Your task to perform on an android device: uninstall "Upside-Cash back on gas & food" Image 0: 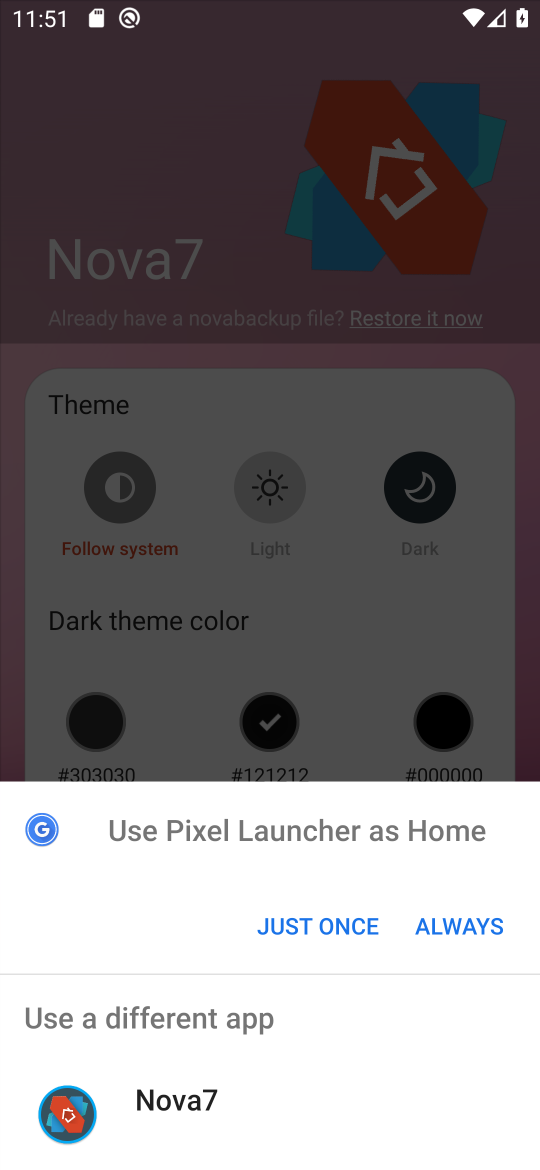
Step 0: press home button
Your task to perform on an android device: uninstall "Upside-Cash back on gas & food" Image 1: 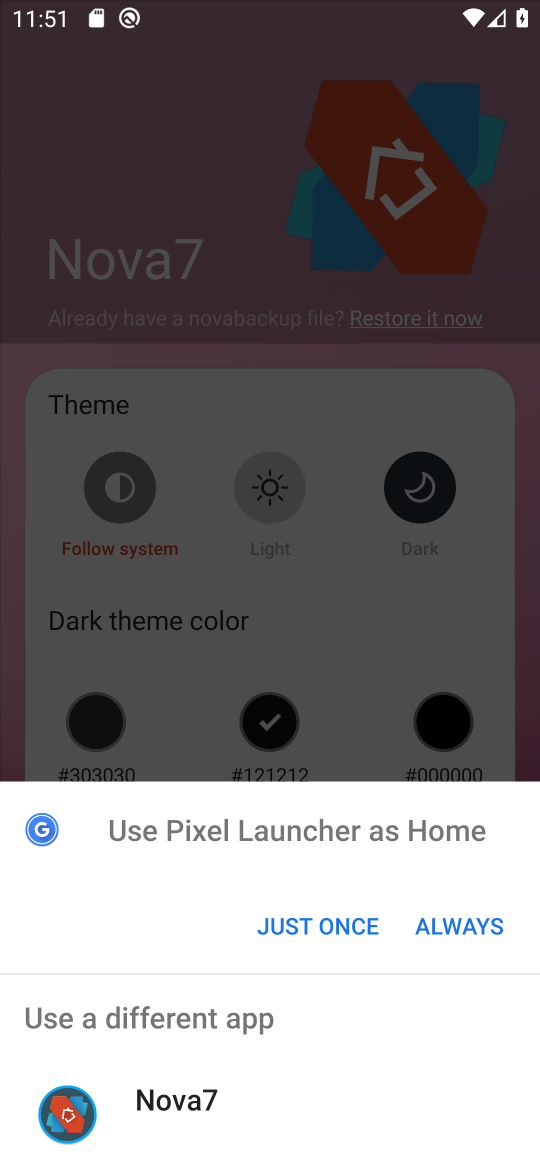
Step 1: press home button
Your task to perform on an android device: uninstall "Upside-Cash back on gas & food" Image 2: 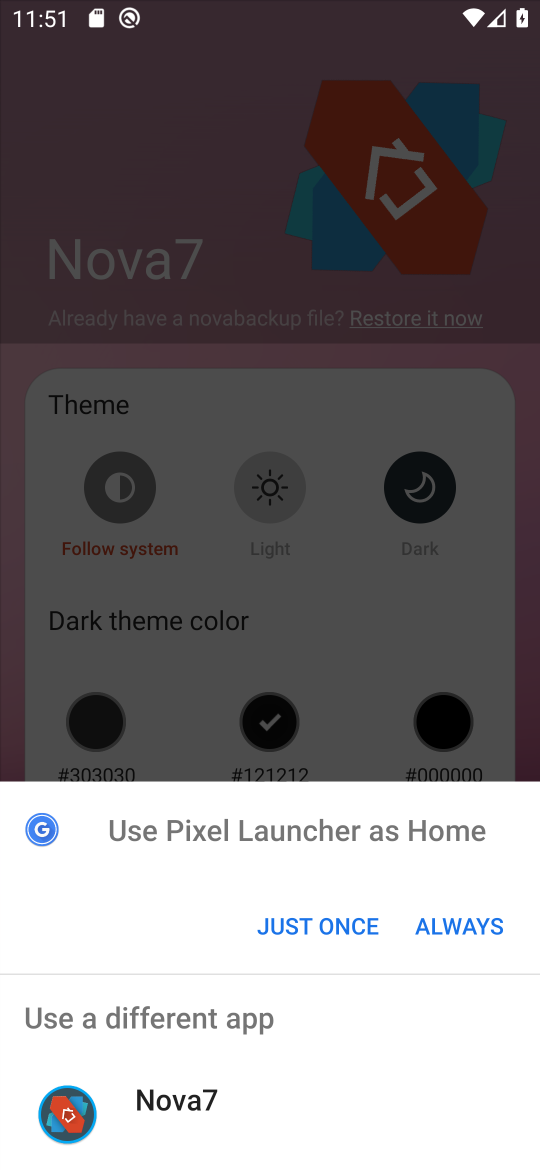
Step 2: click (297, 218)
Your task to perform on an android device: uninstall "Upside-Cash back on gas & food" Image 3: 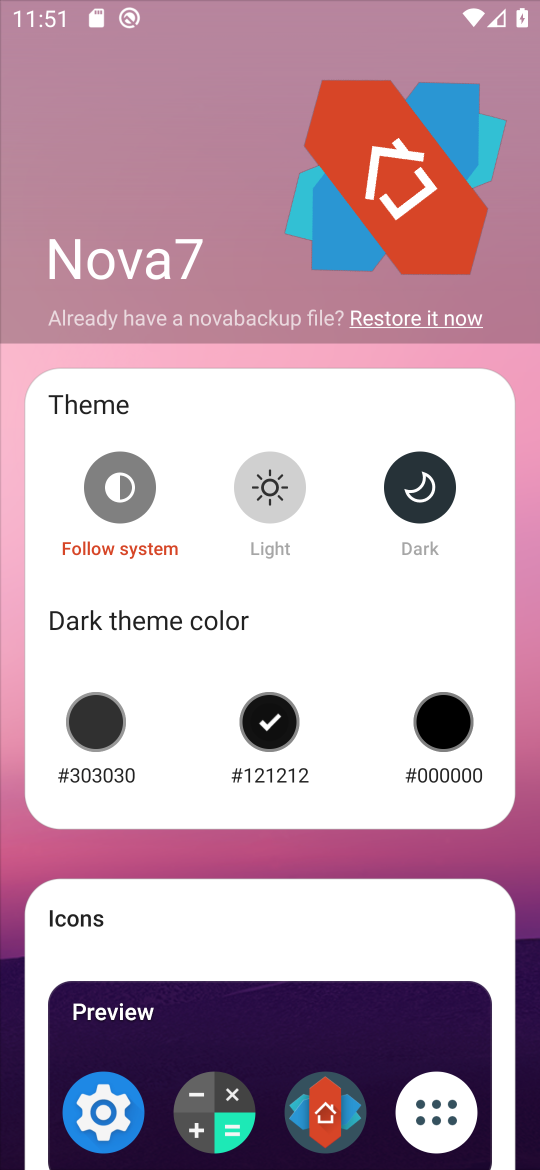
Step 3: drag from (359, 1089) to (313, 72)
Your task to perform on an android device: uninstall "Upside-Cash back on gas & food" Image 4: 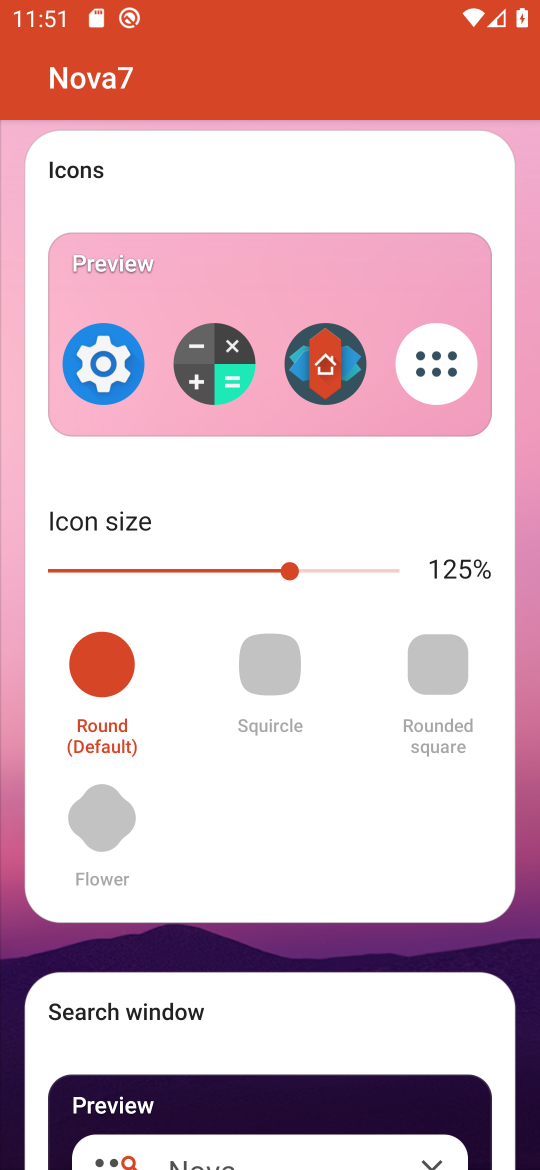
Step 4: drag from (327, 248) to (505, 1158)
Your task to perform on an android device: uninstall "Upside-Cash back on gas & food" Image 5: 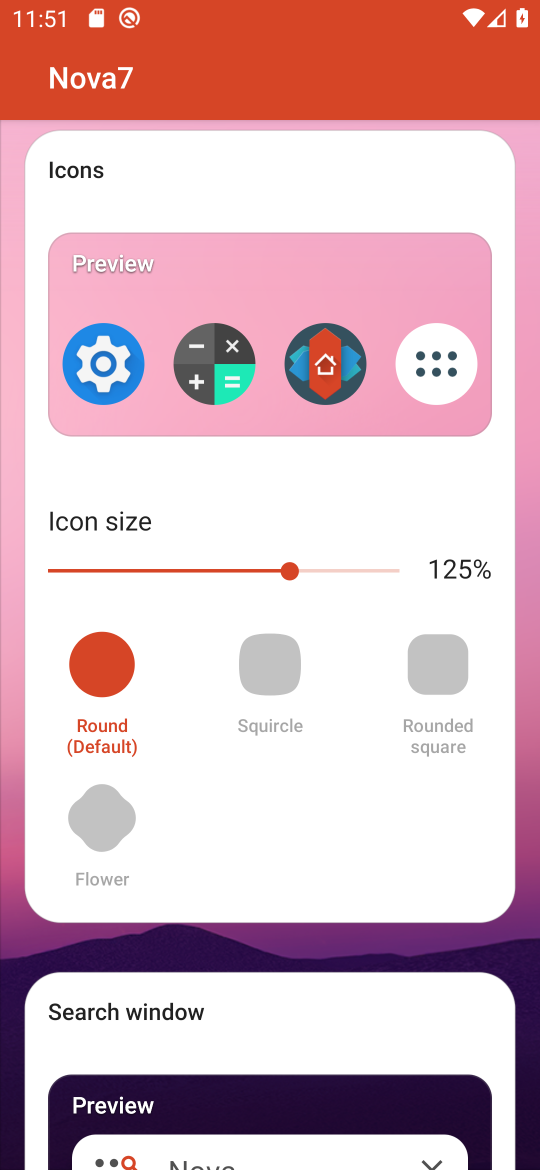
Step 5: press back button
Your task to perform on an android device: uninstall "Upside-Cash back on gas & food" Image 6: 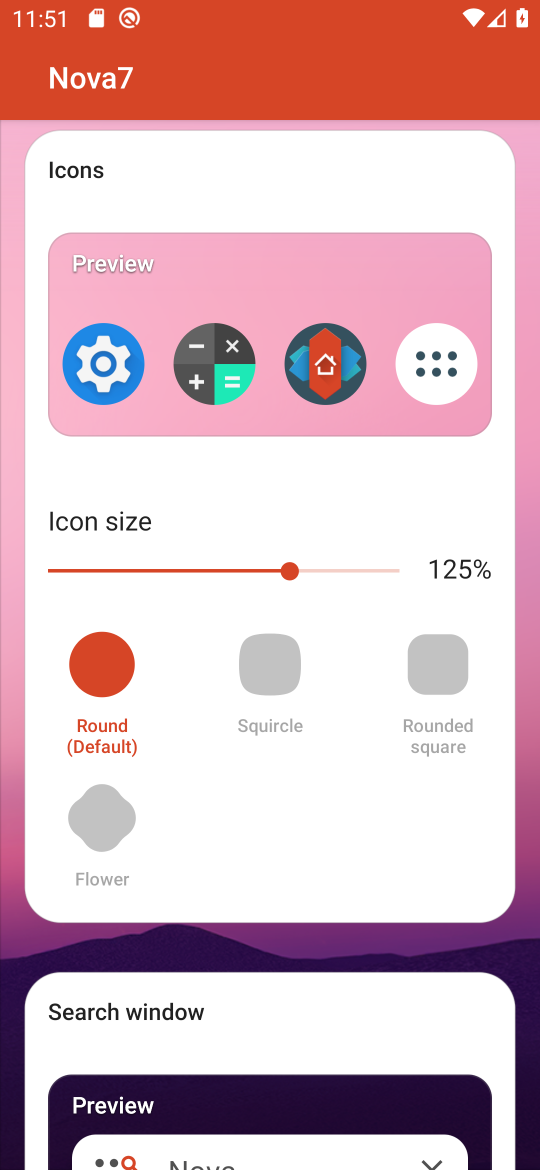
Step 6: press back button
Your task to perform on an android device: uninstall "Upside-Cash back on gas & food" Image 7: 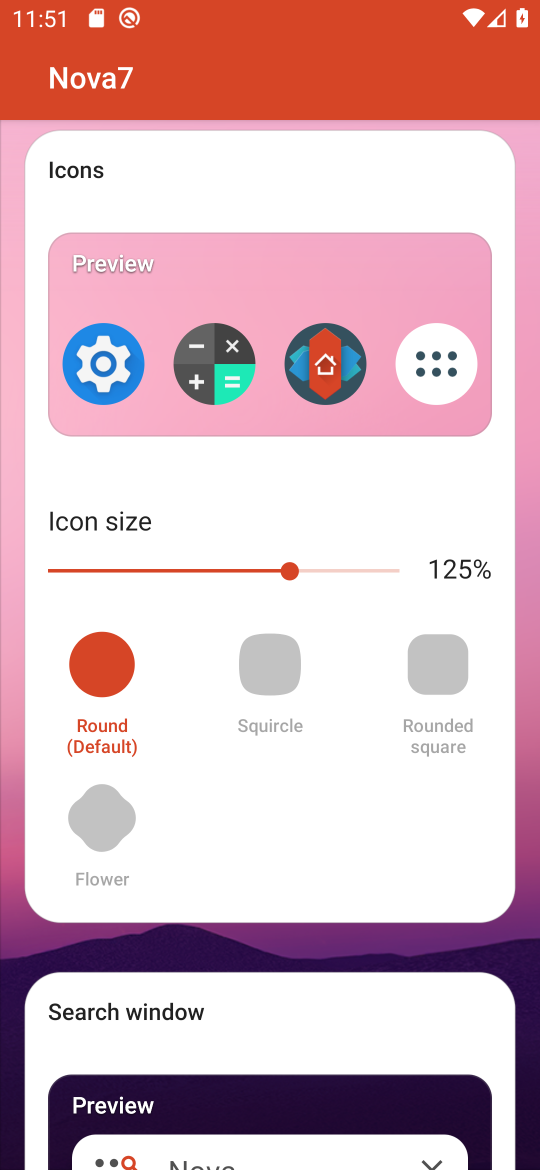
Step 7: press back button
Your task to perform on an android device: uninstall "Upside-Cash back on gas & food" Image 8: 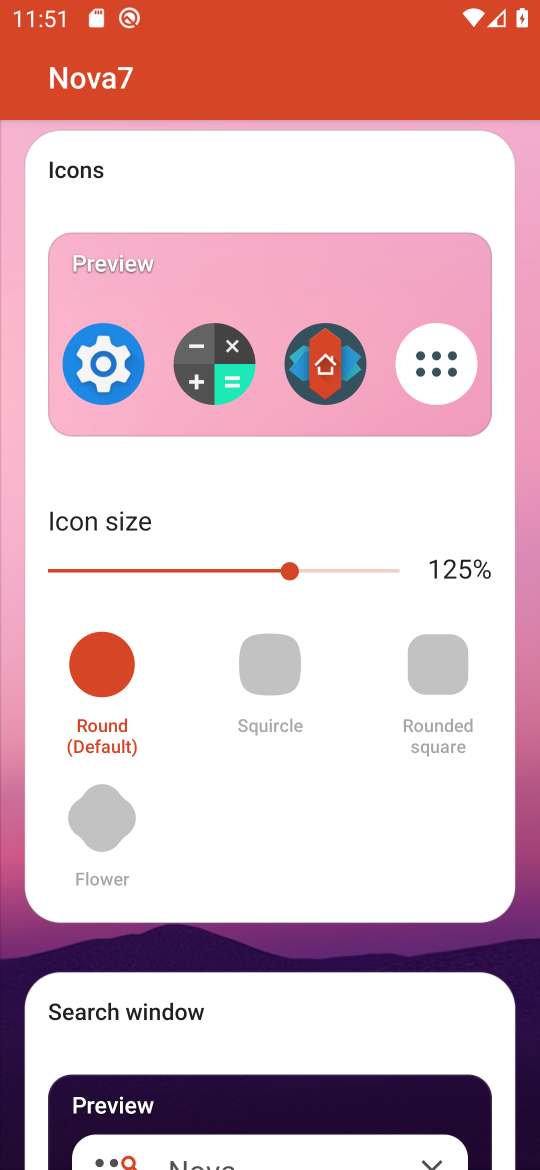
Step 8: press back button
Your task to perform on an android device: uninstall "Upside-Cash back on gas & food" Image 9: 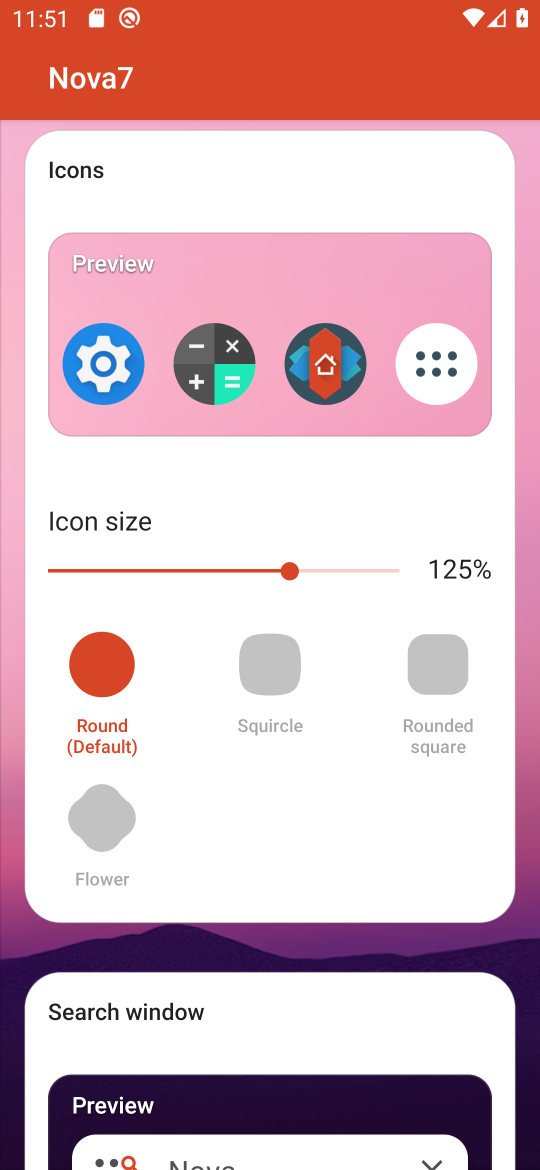
Step 9: drag from (244, 1000) to (376, 349)
Your task to perform on an android device: uninstall "Upside-Cash back on gas & food" Image 10: 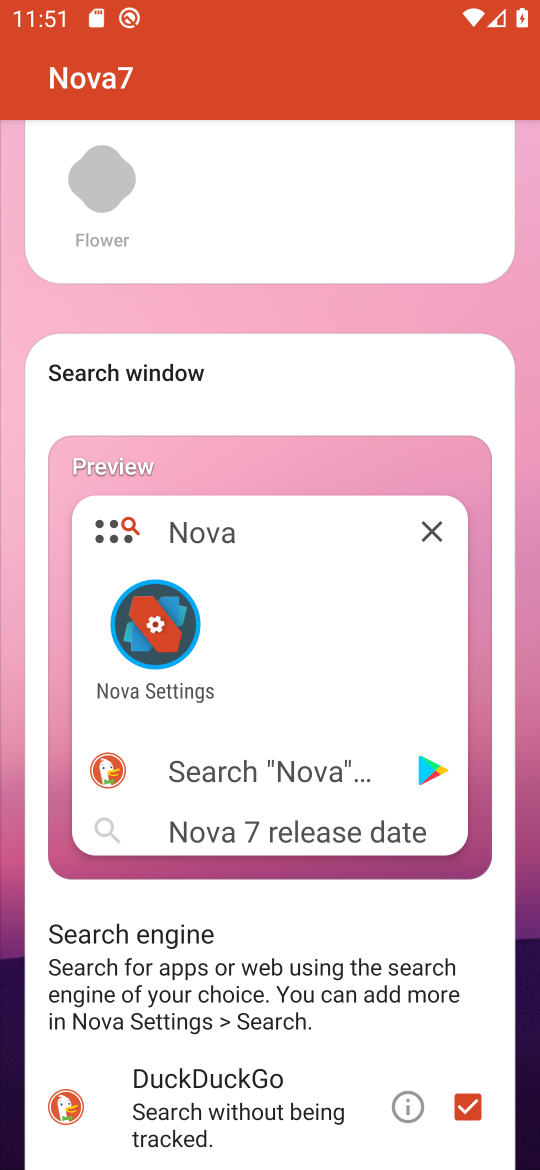
Step 10: click (439, 530)
Your task to perform on an android device: uninstall "Upside-Cash back on gas & food" Image 11: 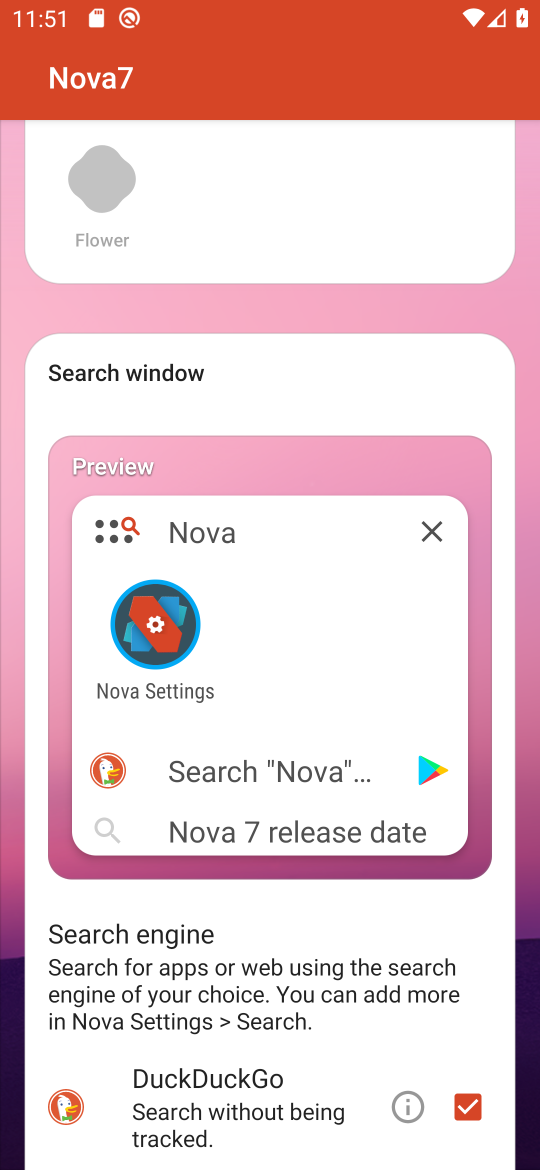
Step 11: click (420, 527)
Your task to perform on an android device: uninstall "Upside-Cash back on gas & food" Image 12: 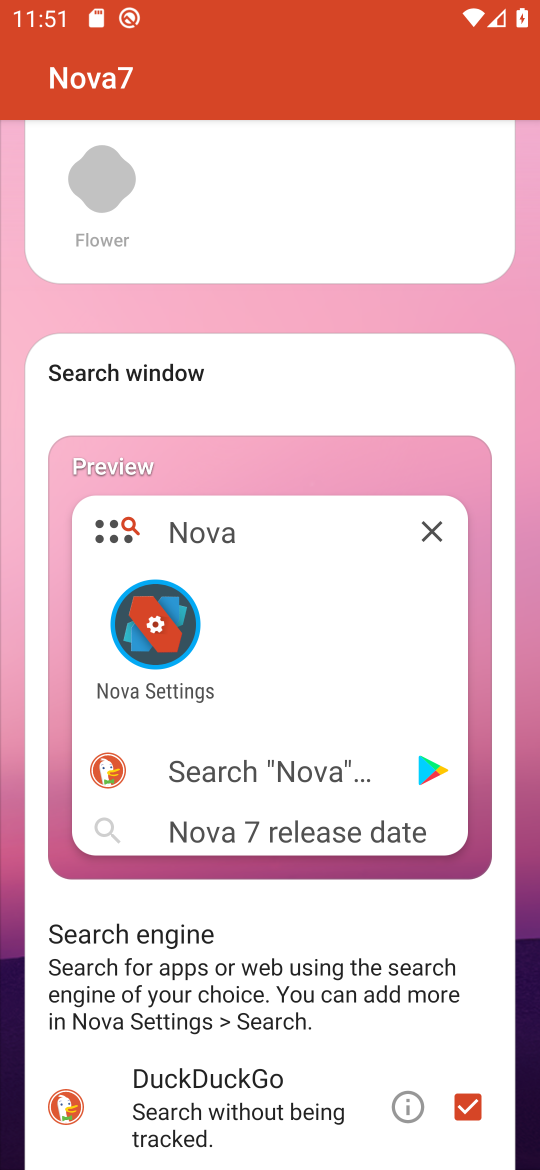
Step 12: click (428, 538)
Your task to perform on an android device: uninstall "Upside-Cash back on gas & food" Image 13: 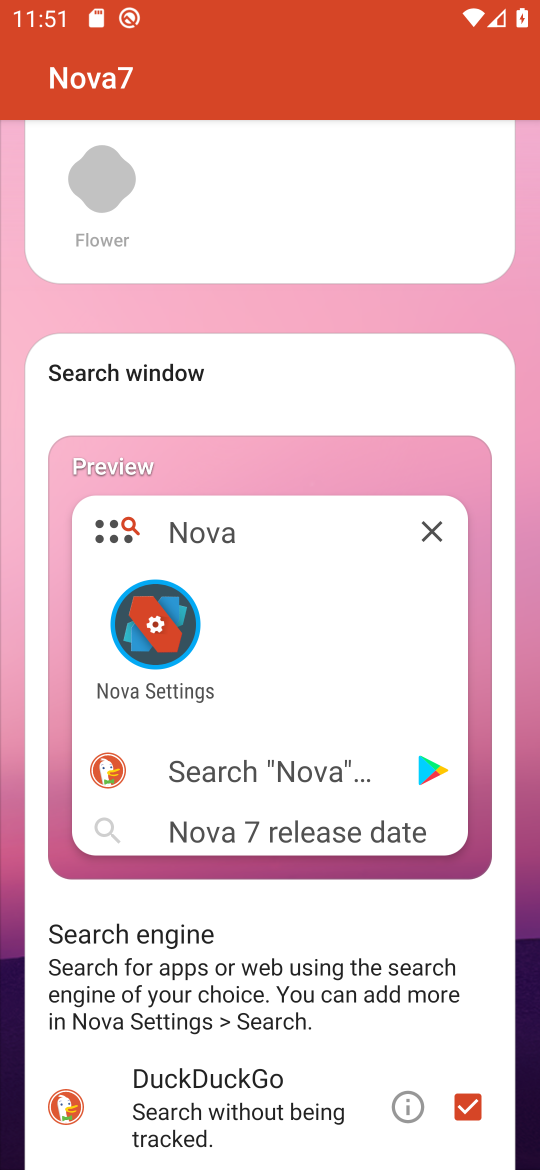
Step 13: click (432, 537)
Your task to perform on an android device: uninstall "Upside-Cash back on gas & food" Image 14: 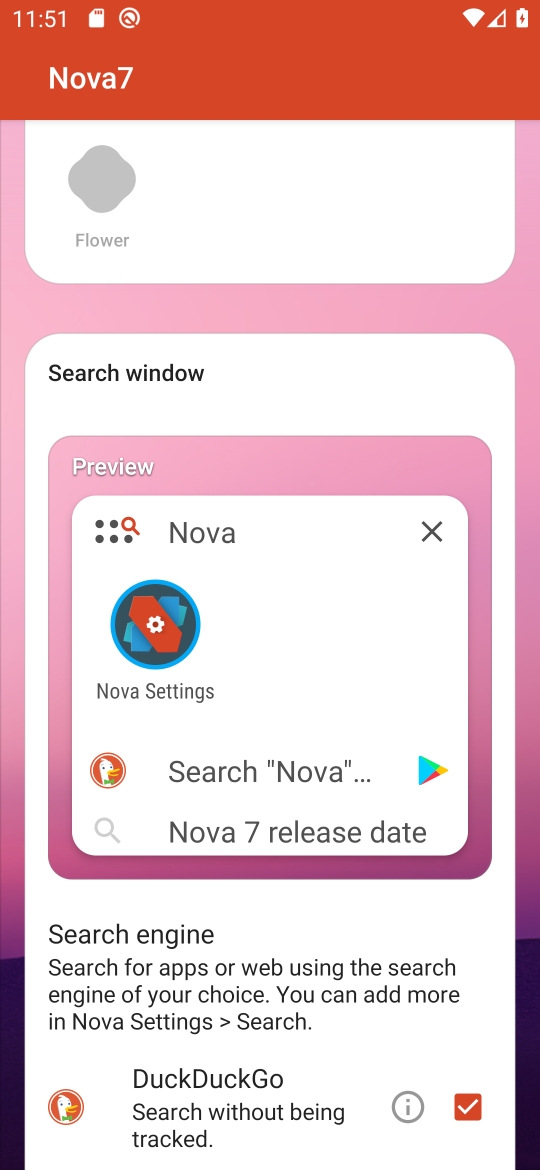
Step 14: drag from (287, 329) to (245, 2)
Your task to perform on an android device: uninstall "Upside-Cash back on gas & food" Image 15: 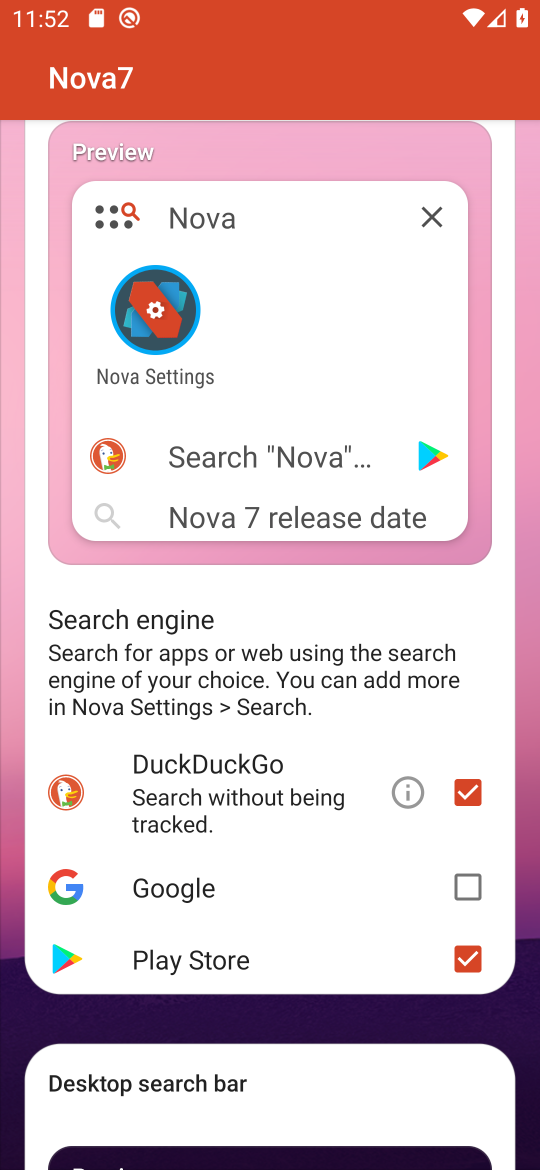
Step 15: click (421, 214)
Your task to perform on an android device: uninstall "Upside-Cash back on gas & food" Image 16: 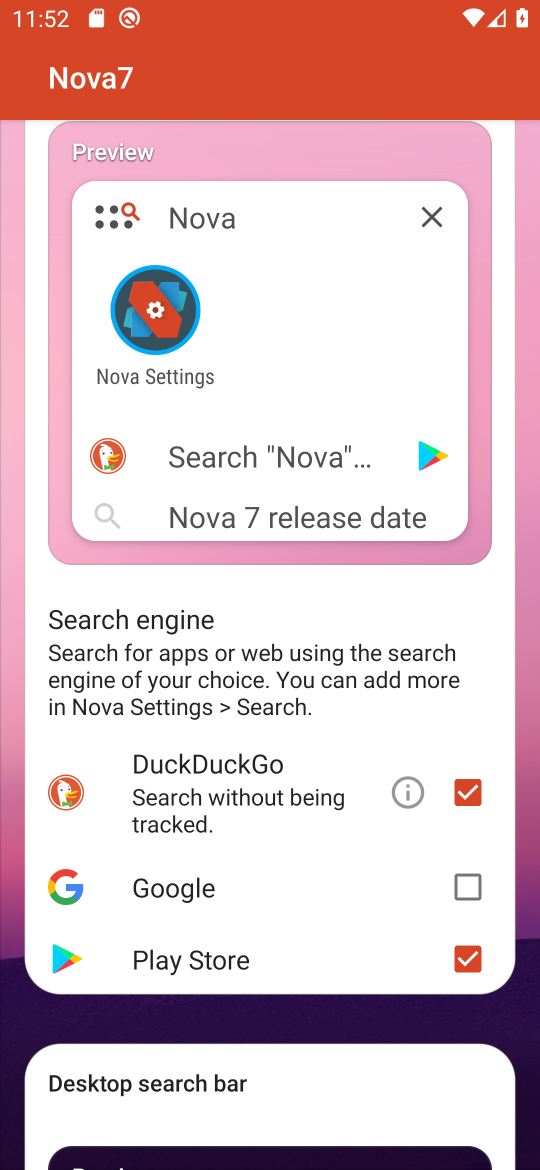
Step 16: click (431, 215)
Your task to perform on an android device: uninstall "Upside-Cash back on gas & food" Image 17: 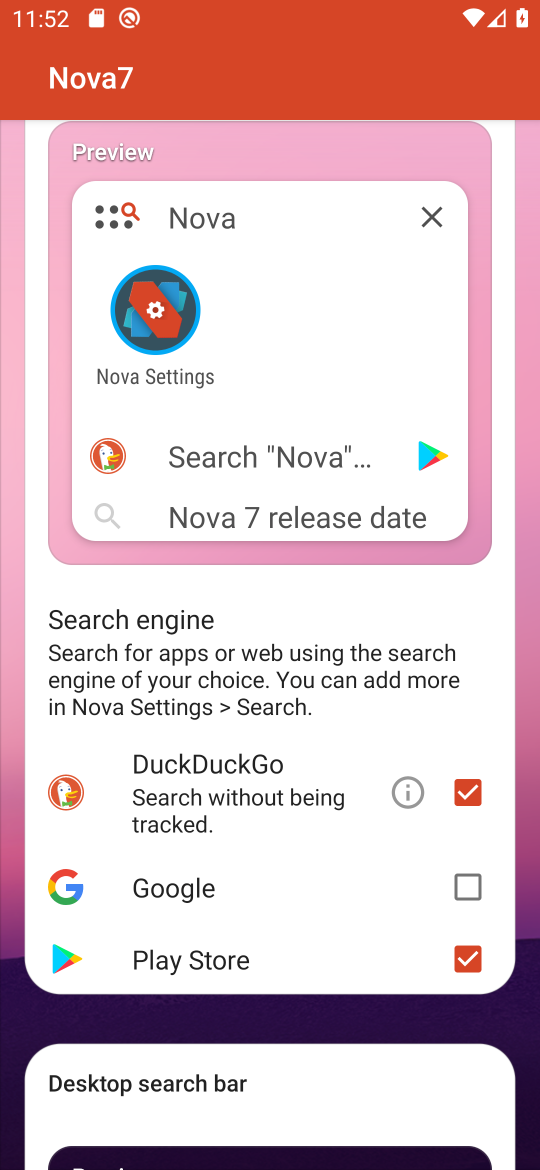
Step 17: click (431, 212)
Your task to perform on an android device: uninstall "Upside-Cash back on gas & food" Image 18: 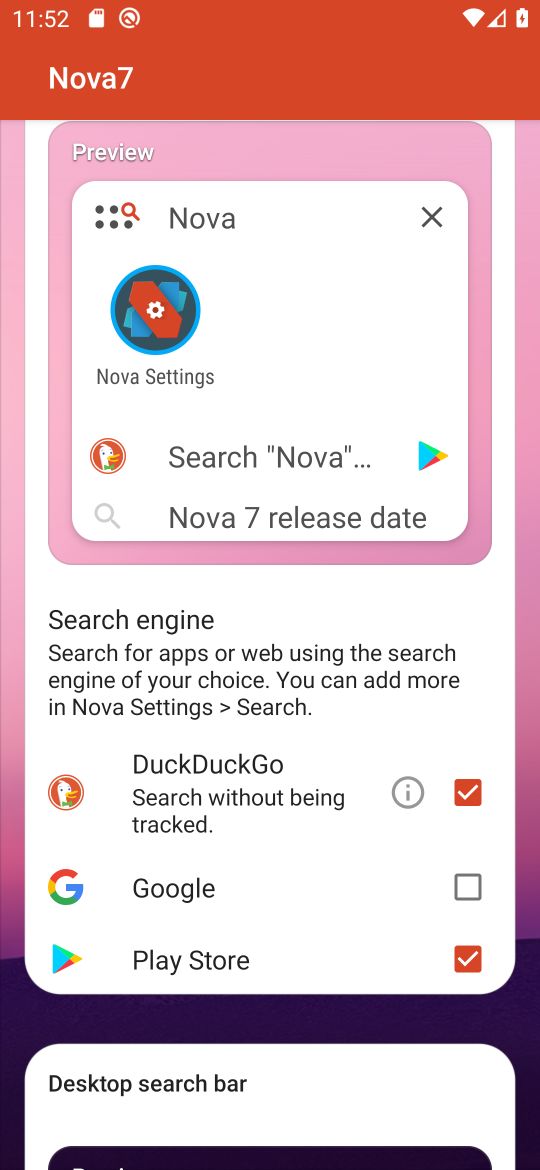
Step 18: drag from (167, 975) to (331, 364)
Your task to perform on an android device: uninstall "Upside-Cash back on gas & food" Image 19: 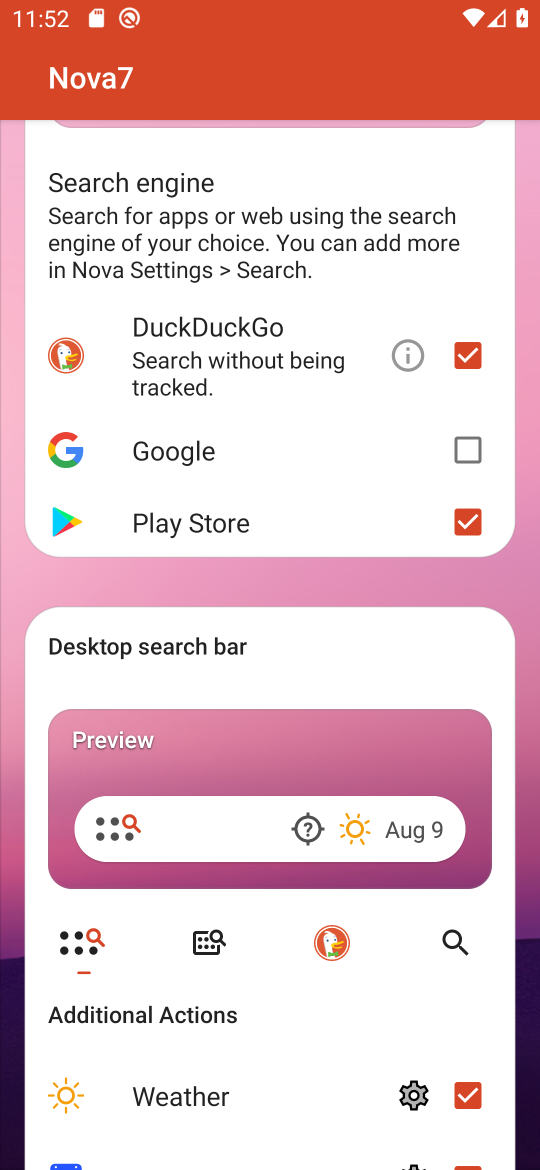
Step 19: drag from (316, 606) to (334, 187)
Your task to perform on an android device: uninstall "Upside-Cash back on gas & food" Image 20: 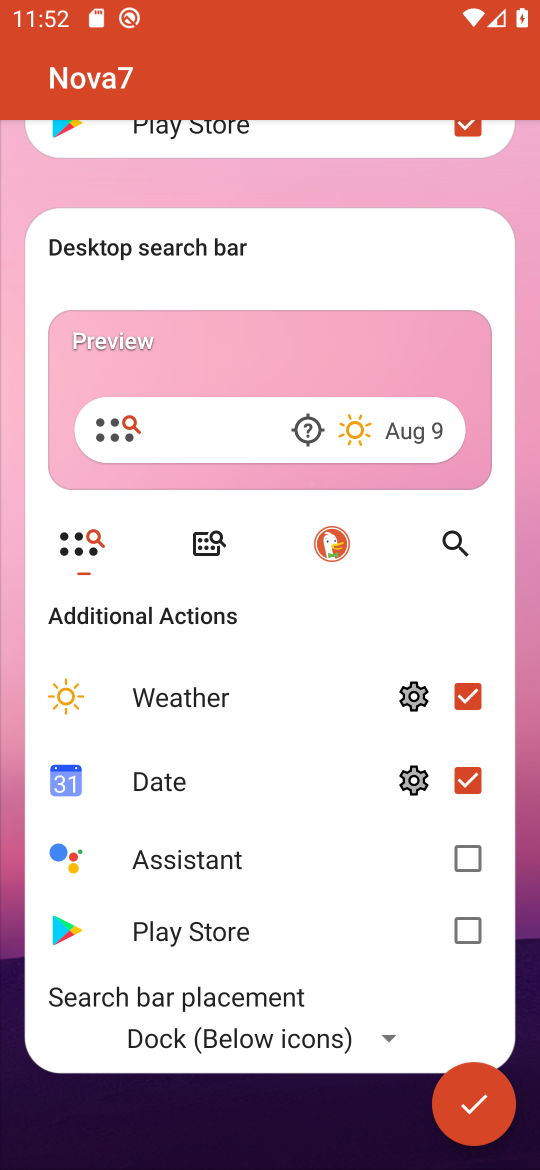
Step 20: press back button
Your task to perform on an android device: uninstall "Upside-Cash back on gas & food" Image 21: 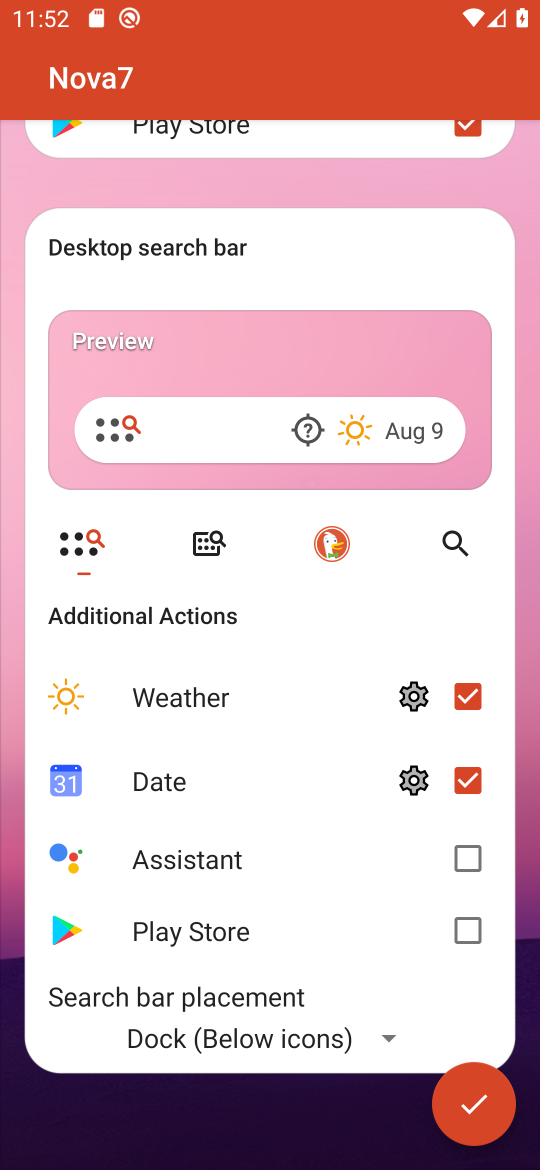
Step 21: press back button
Your task to perform on an android device: uninstall "Upside-Cash back on gas & food" Image 22: 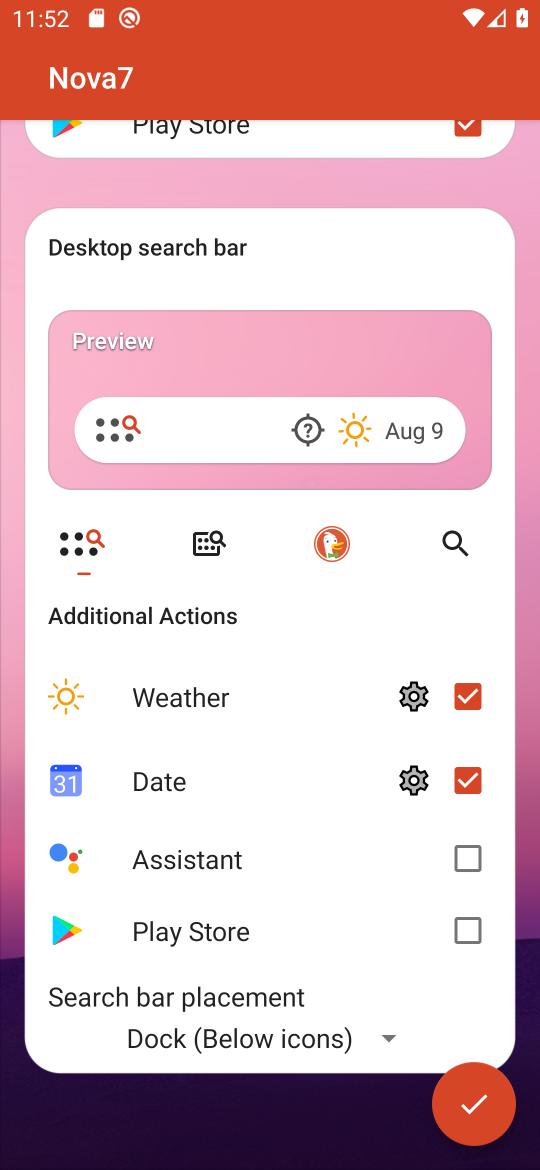
Step 22: press back button
Your task to perform on an android device: uninstall "Upside-Cash back on gas & food" Image 23: 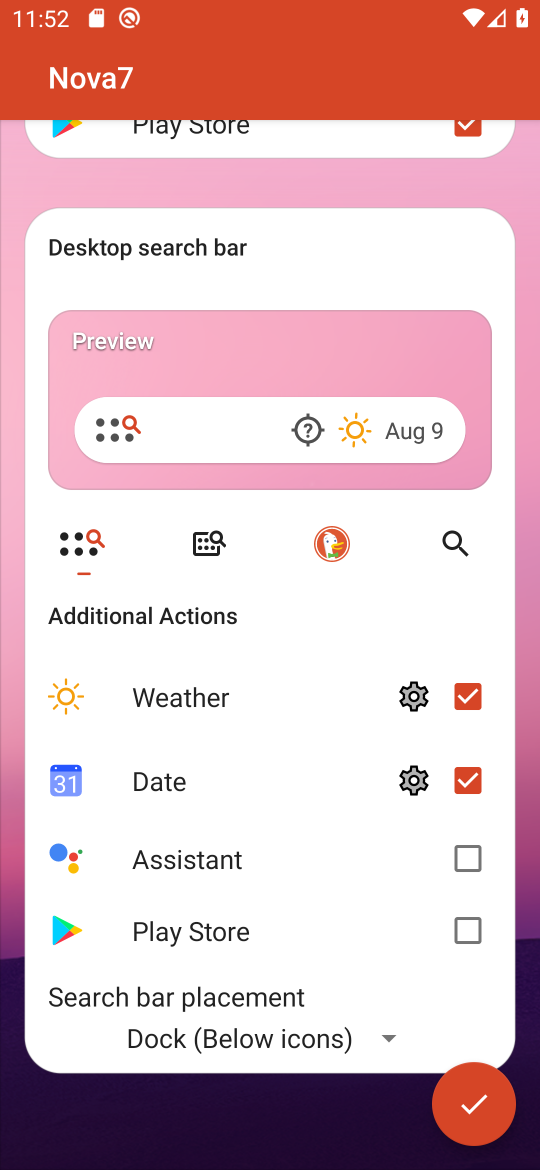
Step 23: press back button
Your task to perform on an android device: uninstall "Upside-Cash back on gas & food" Image 24: 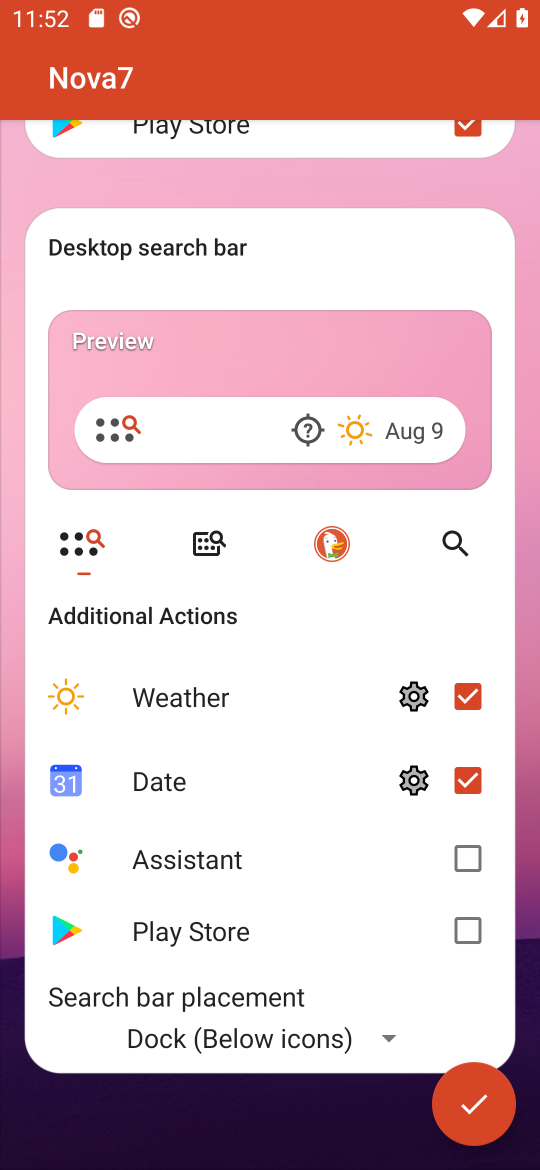
Step 24: press home button
Your task to perform on an android device: uninstall "Upside-Cash back on gas & food" Image 25: 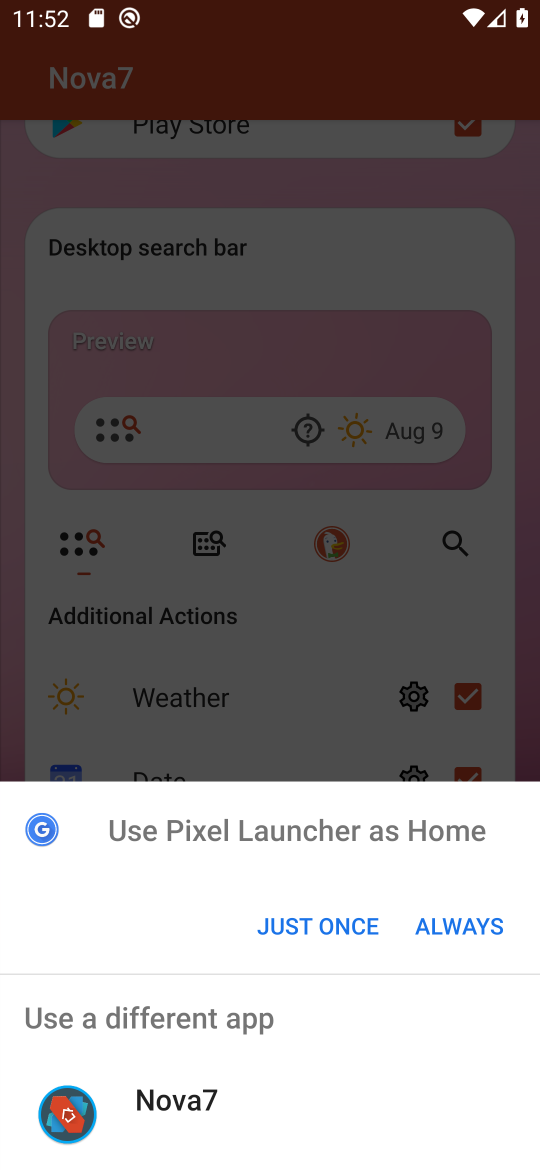
Step 25: click (282, 920)
Your task to perform on an android device: uninstall "Upside-Cash back on gas & food" Image 26: 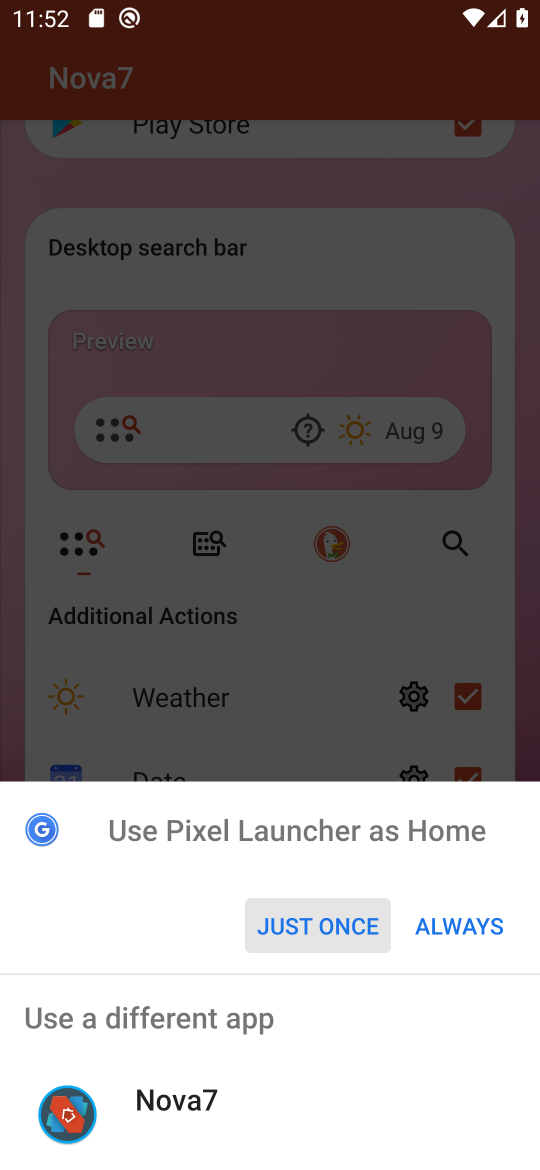
Step 26: click (86, 1110)
Your task to perform on an android device: uninstall "Upside-Cash back on gas & food" Image 27: 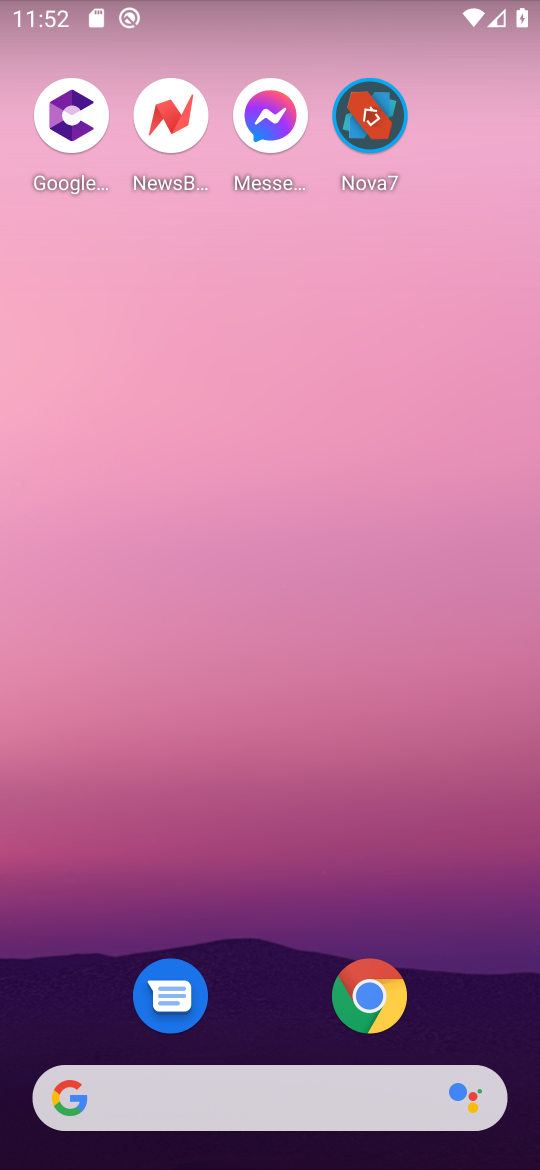
Step 27: drag from (252, 741) to (309, 251)
Your task to perform on an android device: uninstall "Upside-Cash back on gas & food" Image 28: 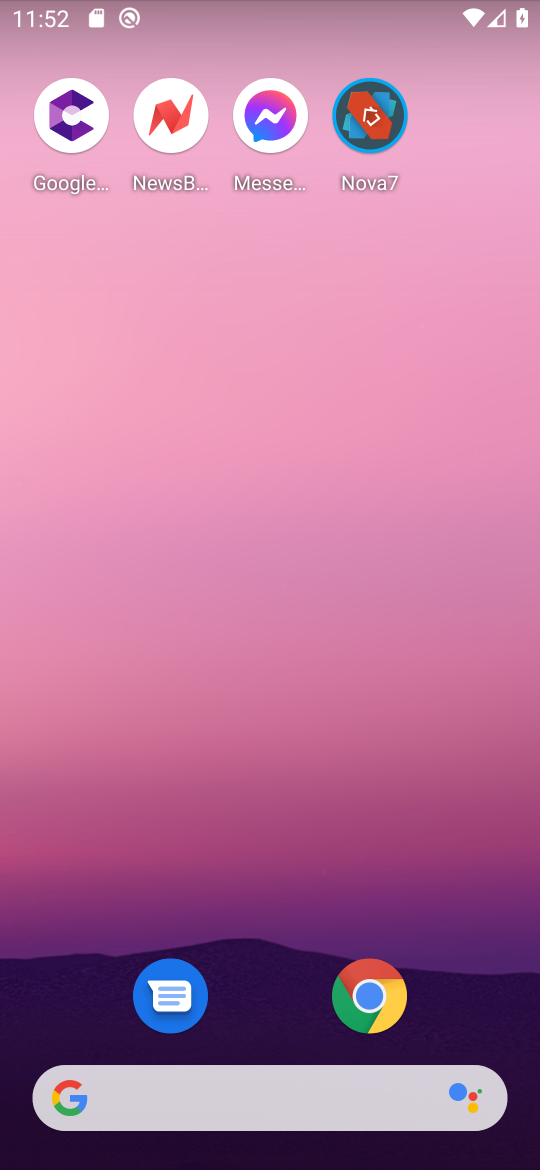
Step 28: drag from (248, 1035) to (377, 101)
Your task to perform on an android device: uninstall "Upside-Cash back on gas & food" Image 29: 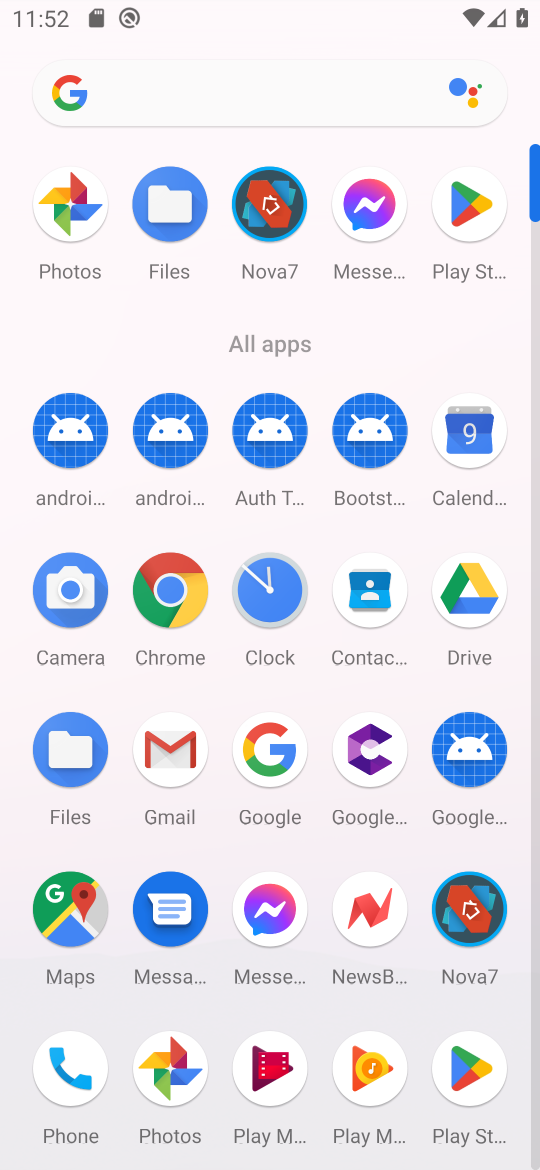
Step 29: click (463, 195)
Your task to perform on an android device: uninstall "Upside-Cash back on gas & food" Image 30: 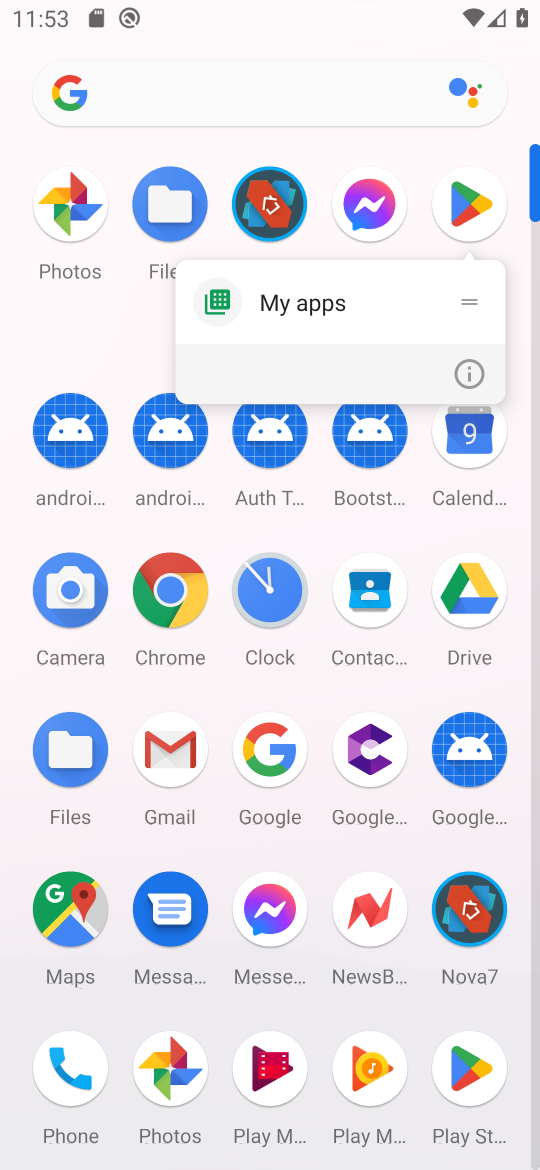
Step 30: click (463, 201)
Your task to perform on an android device: uninstall "Upside-Cash back on gas & food" Image 31: 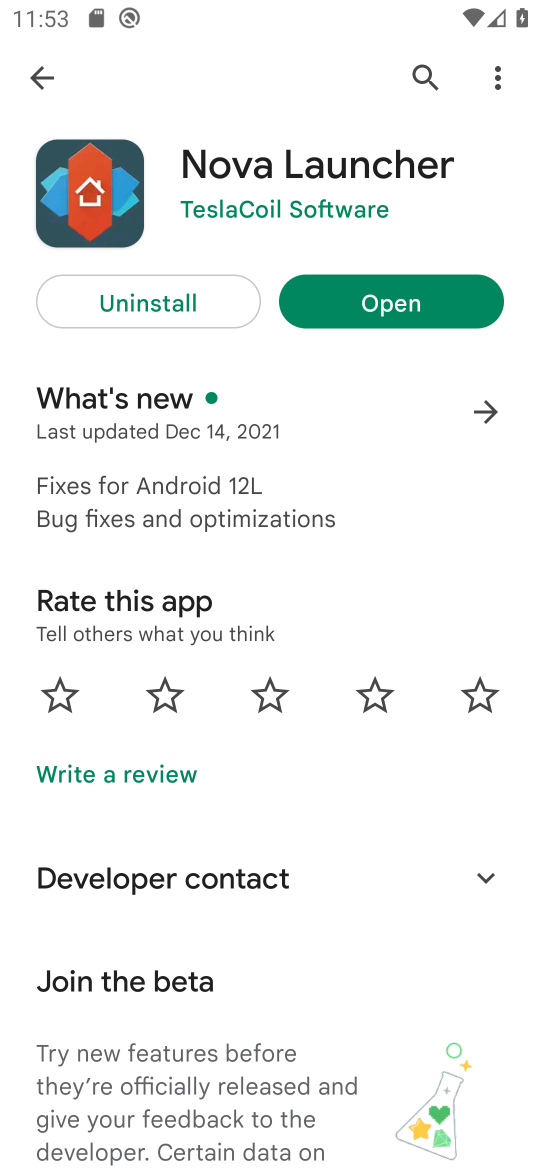
Step 31: click (44, 97)
Your task to perform on an android device: uninstall "Upside-Cash back on gas & food" Image 32: 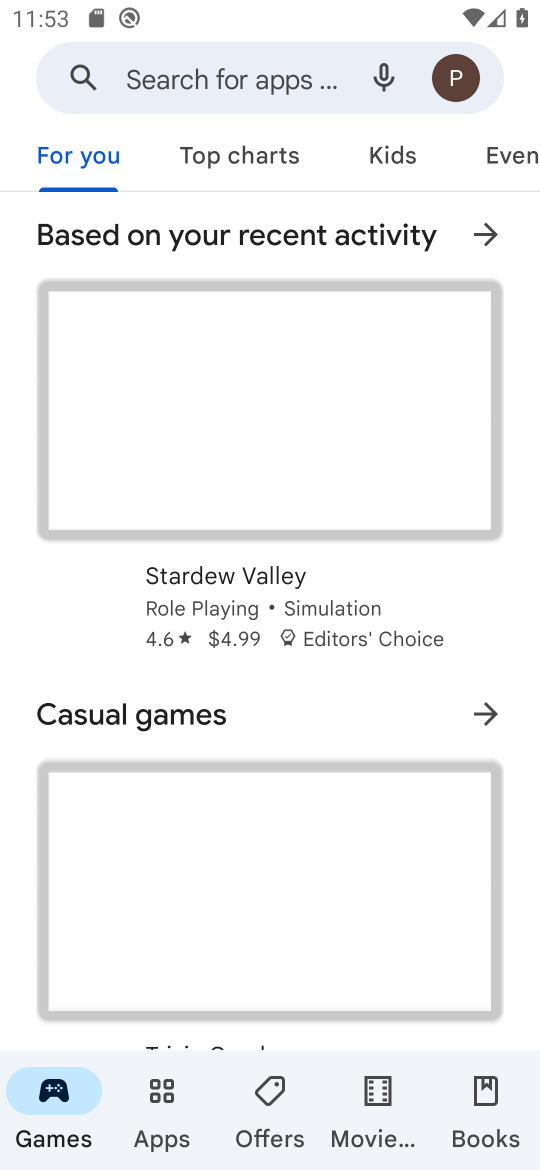
Step 32: click (205, 92)
Your task to perform on an android device: uninstall "Upside-Cash back on gas & food" Image 33: 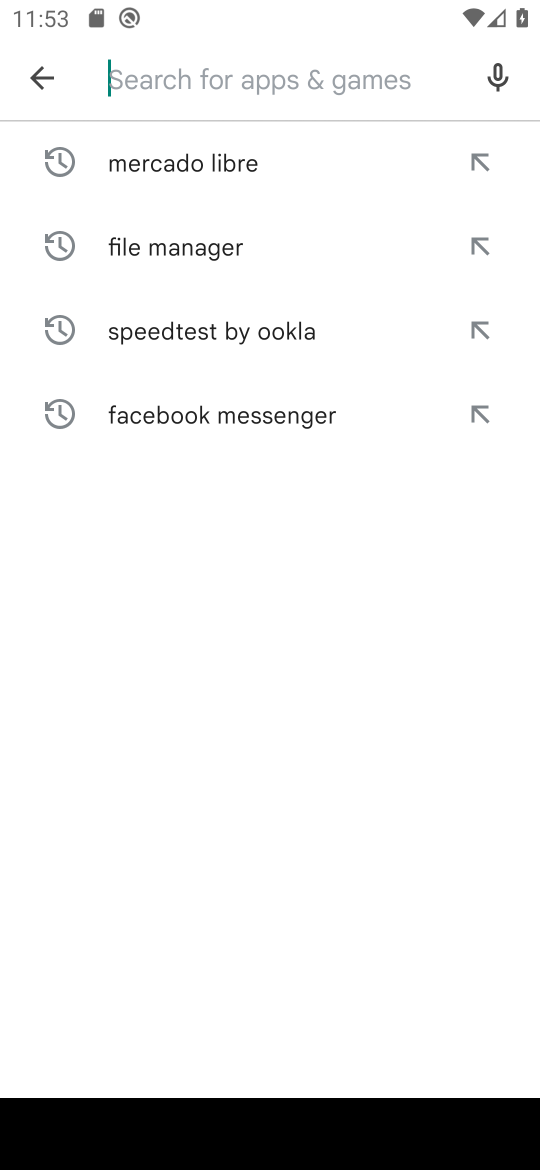
Step 33: type "Upside-Cash back on gas & food"
Your task to perform on an android device: uninstall "Upside-Cash back on gas & food" Image 34: 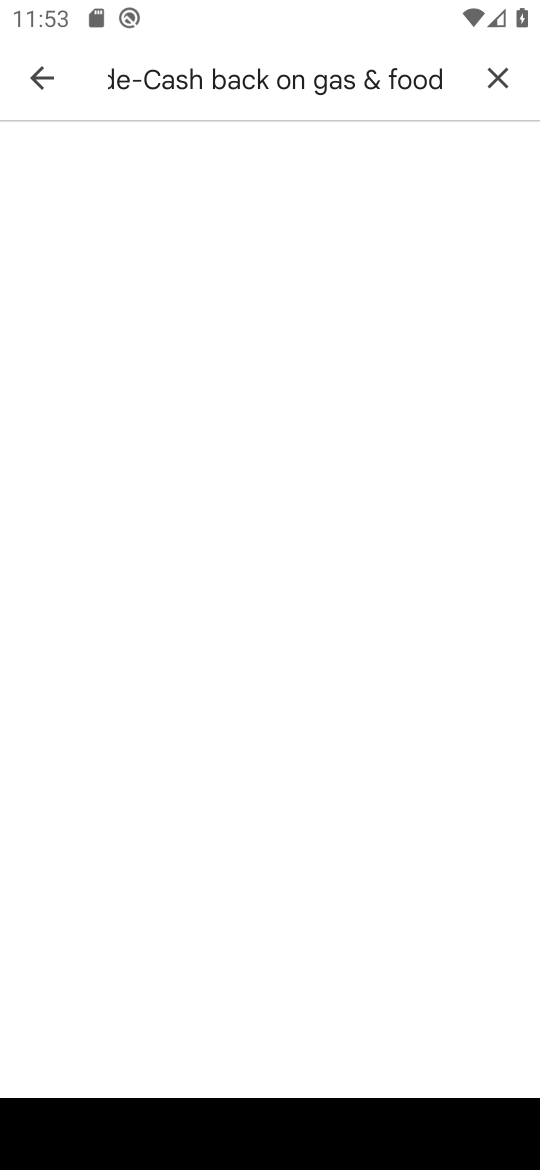
Step 34: press enter
Your task to perform on an android device: uninstall "Upside-Cash back on gas & food" Image 35: 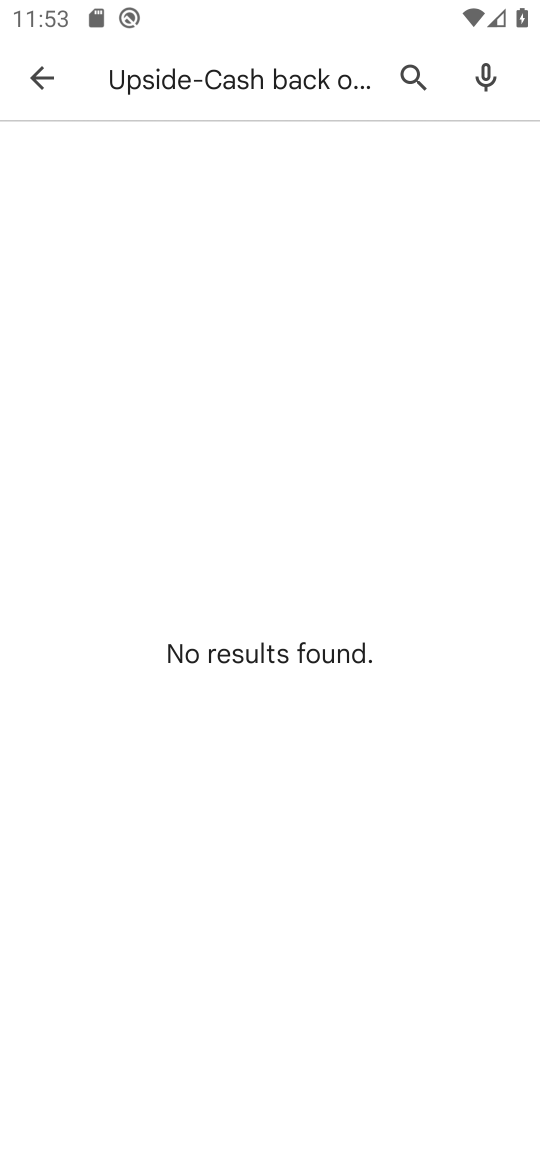
Step 35: task complete